Your task to perform on an android device: Open Google Maps and go to "Timeline" Image 0: 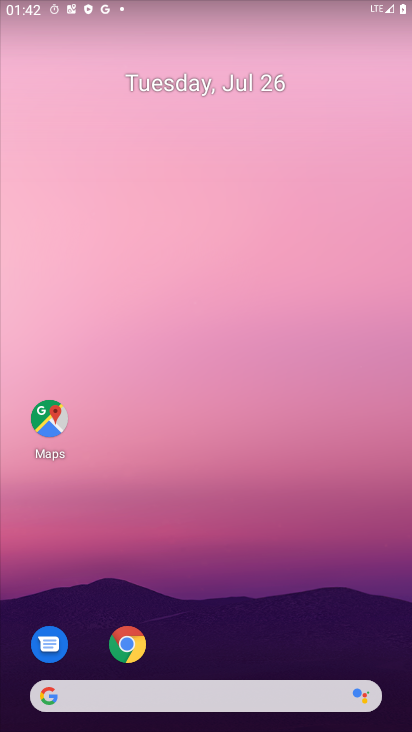
Step 0: click (46, 422)
Your task to perform on an android device: Open Google Maps and go to "Timeline" Image 1: 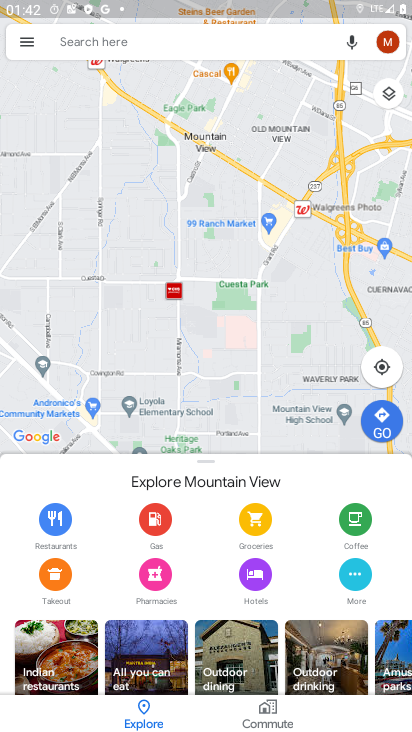
Step 1: click (31, 42)
Your task to perform on an android device: Open Google Maps and go to "Timeline" Image 2: 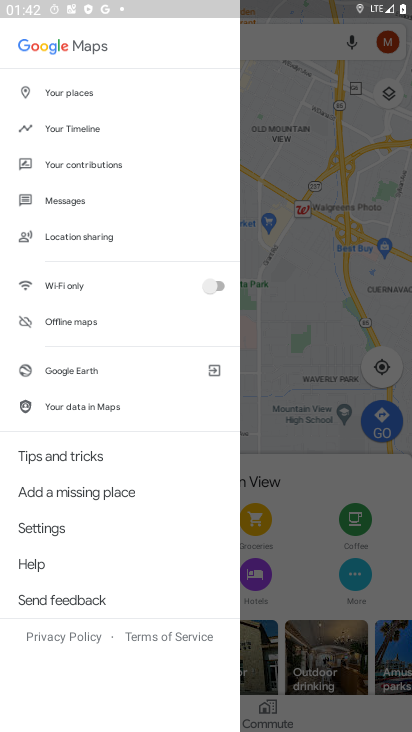
Step 2: click (59, 127)
Your task to perform on an android device: Open Google Maps and go to "Timeline" Image 3: 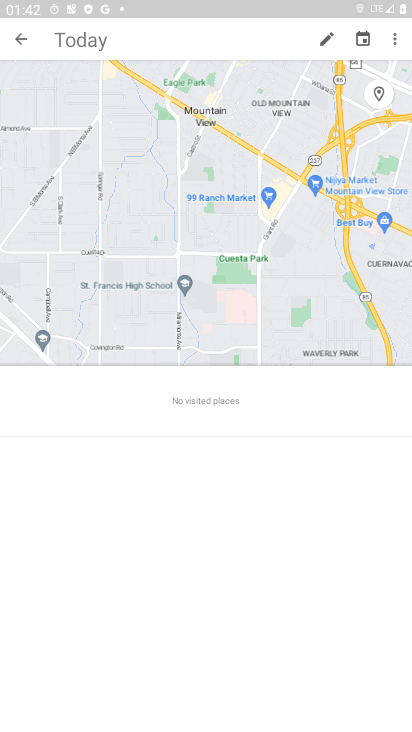
Step 3: task complete